Your task to perform on an android device: empty trash in google photos Image 0: 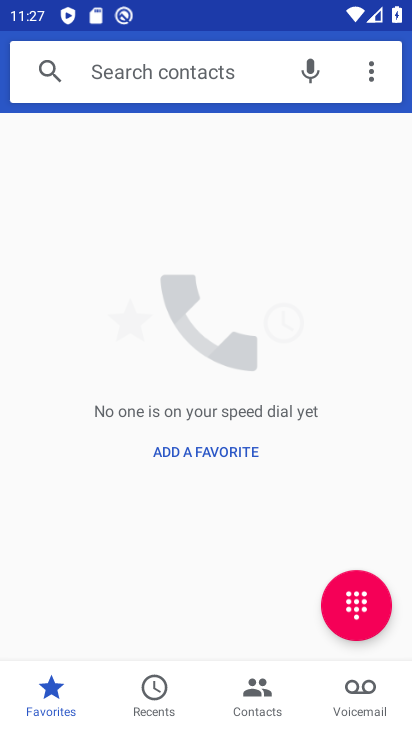
Step 0: press home button
Your task to perform on an android device: empty trash in google photos Image 1: 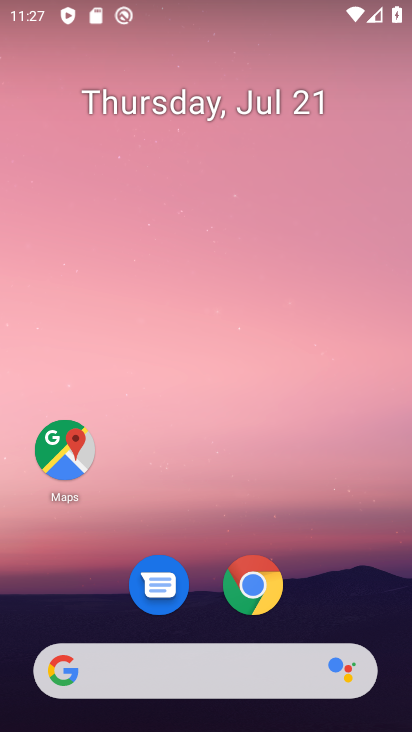
Step 1: drag from (209, 685) to (337, 169)
Your task to perform on an android device: empty trash in google photos Image 2: 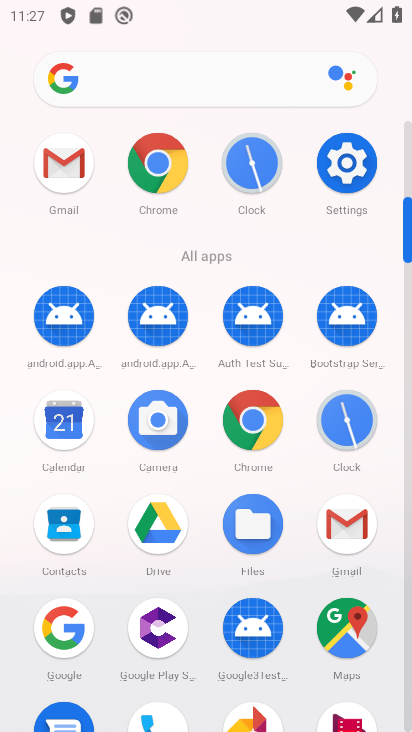
Step 2: drag from (208, 568) to (363, 149)
Your task to perform on an android device: empty trash in google photos Image 3: 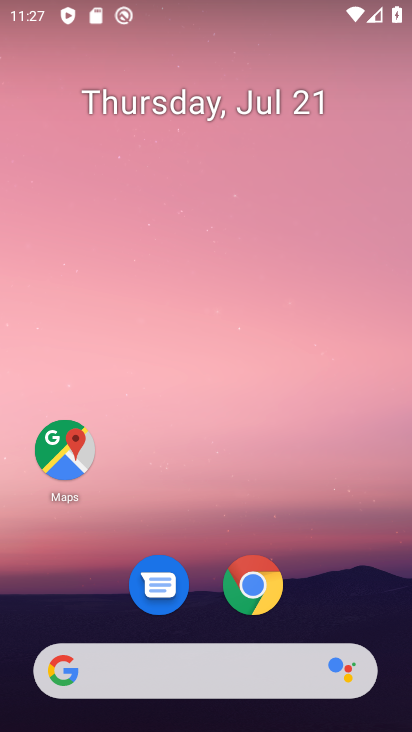
Step 3: click (324, 140)
Your task to perform on an android device: empty trash in google photos Image 4: 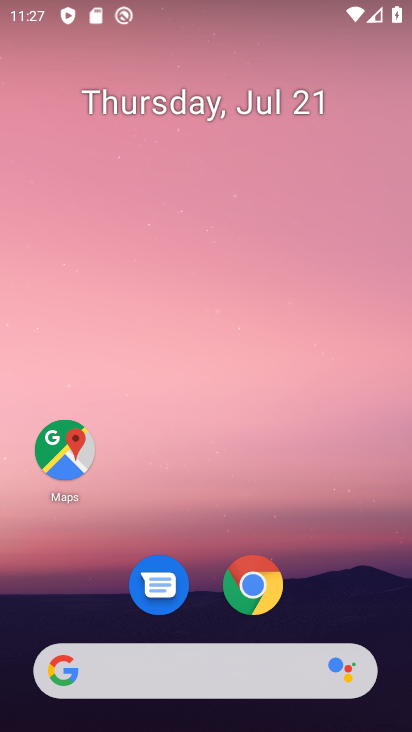
Step 4: drag from (189, 556) to (289, 41)
Your task to perform on an android device: empty trash in google photos Image 5: 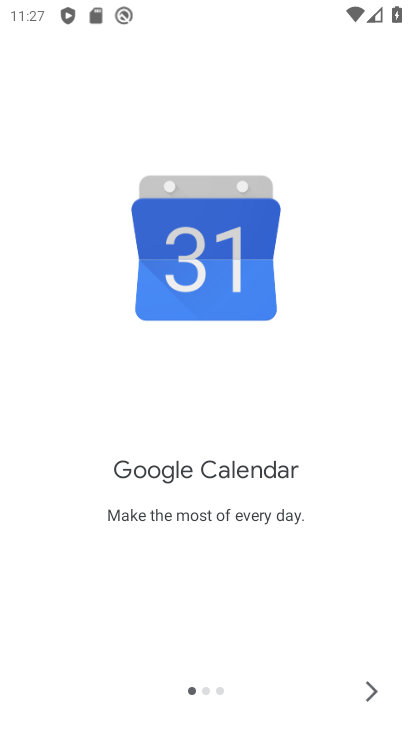
Step 5: press home button
Your task to perform on an android device: empty trash in google photos Image 6: 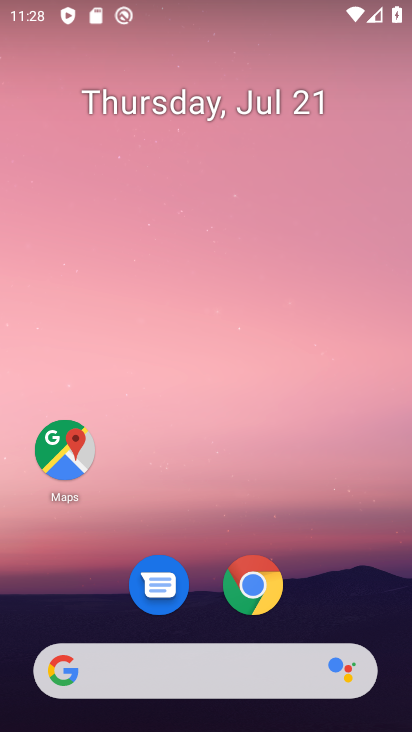
Step 6: drag from (171, 663) to (355, 77)
Your task to perform on an android device: empty trash in google photos Image 7: 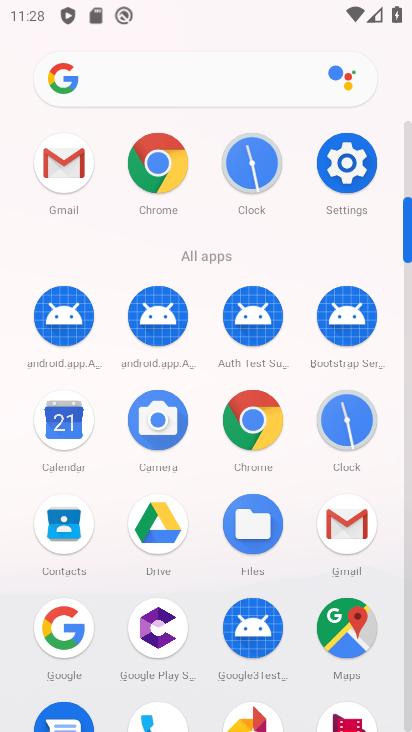
Step 7: drag from (206, 561) to (356, 159)
Your task to perform on an android device: empty trash in google photos Image 8: 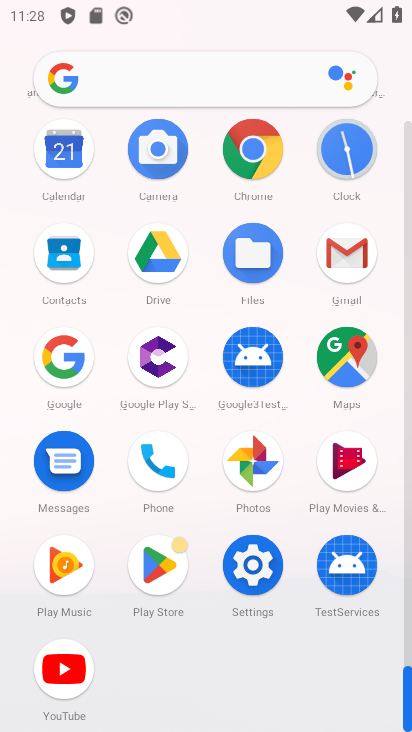
Step 8: click (254, 460)
Your task to perform on an android device: empty trash in google photos Image 9: 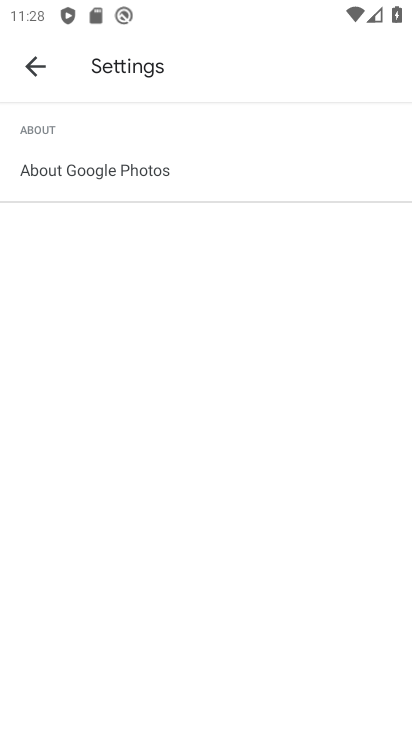
Step 9: click (32, 65)
Your task to perform on an android device: empty trash in google photos Image 10: 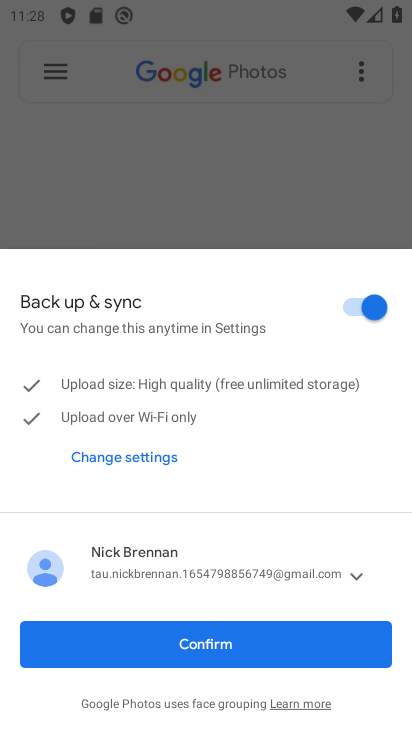
Step 10: click (181, 646)
Your task to perform on an android device: empty trash in google photos Image 11: 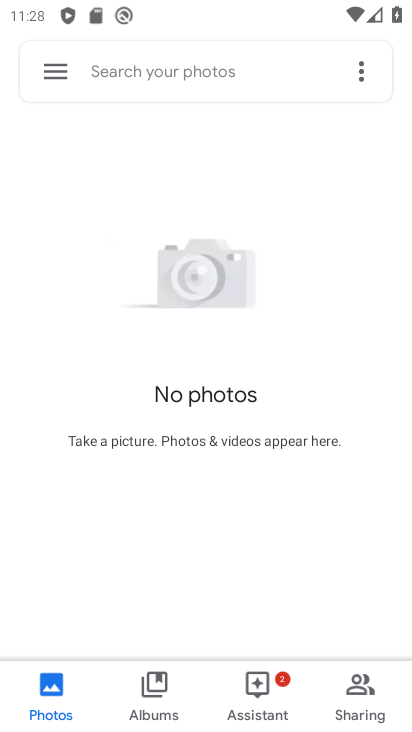
Step 11: click (48, 73)
Your task to perform on an android device: empty trash in google photos Image 12: 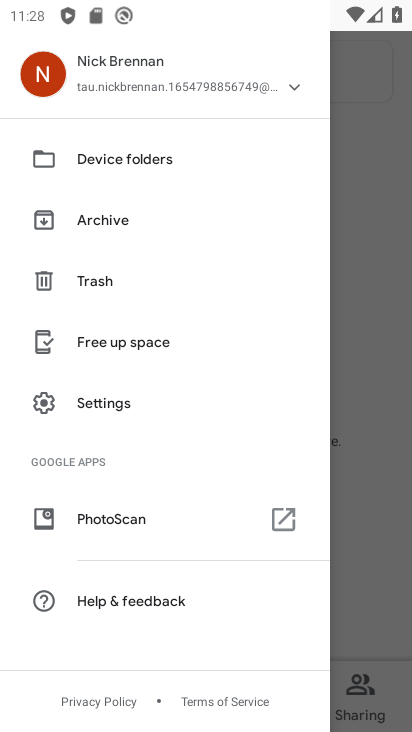
Step 12: click (103, 277)
Your task to perform on an android device: empty trash in google photos Image 13: 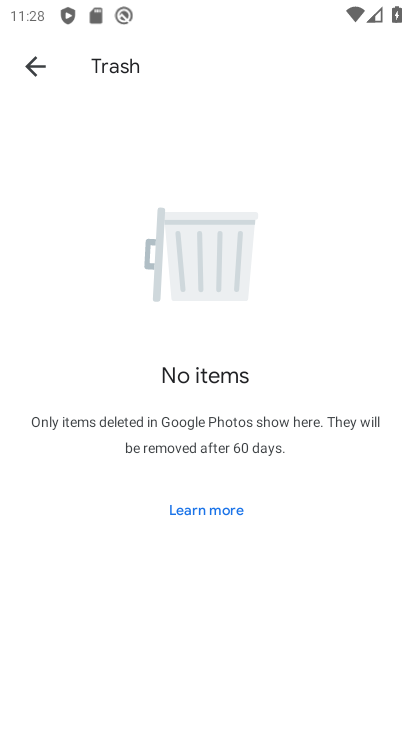
Step 13: task complete